Your task to perform on an android device: turn off priority inbox in the gmail app Image 0: 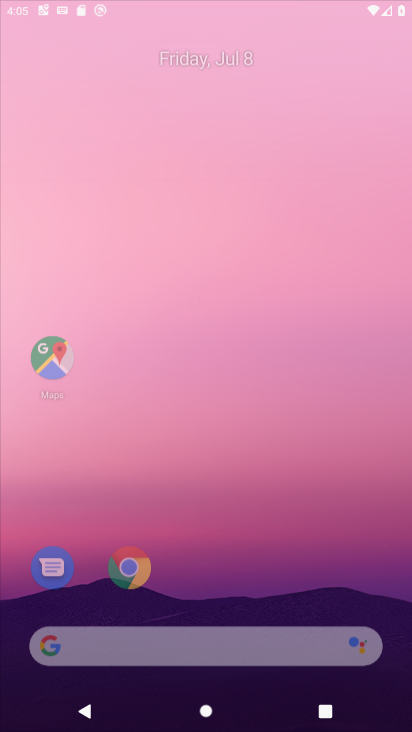
Step 0: click (301, 32)
Your task to perform on an android device: turn off priority inbox in the gmail app Image 1: 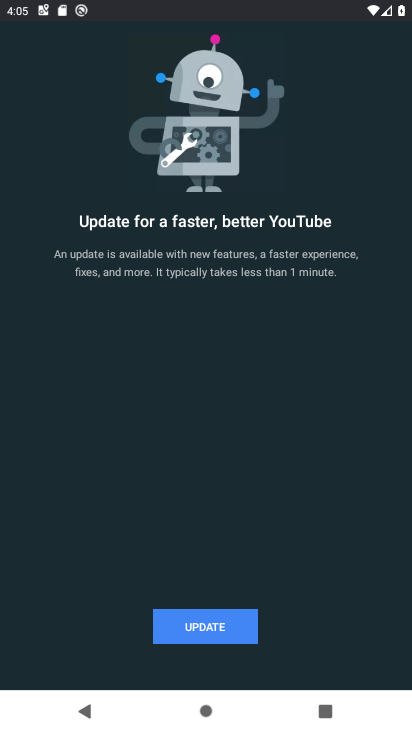
Step 1: press home button
Your task to perform on an android device: turn off priority inbox in the gmail app Image 2: 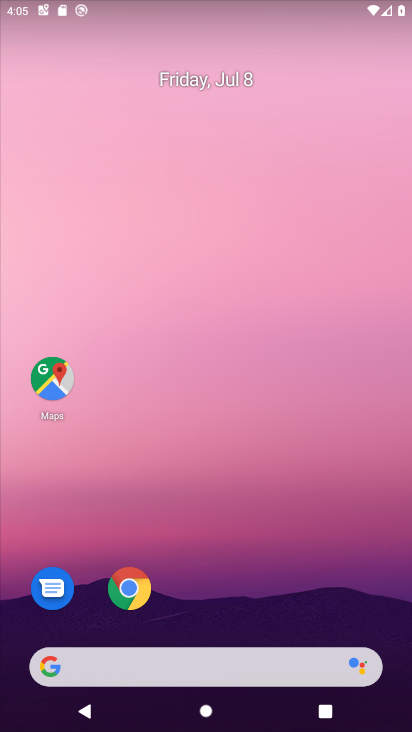
Step 2: drag from (211, 582) to (322, 0)
Your task to perform on an android device: turn off priority inbox in the gmail app Image 3: 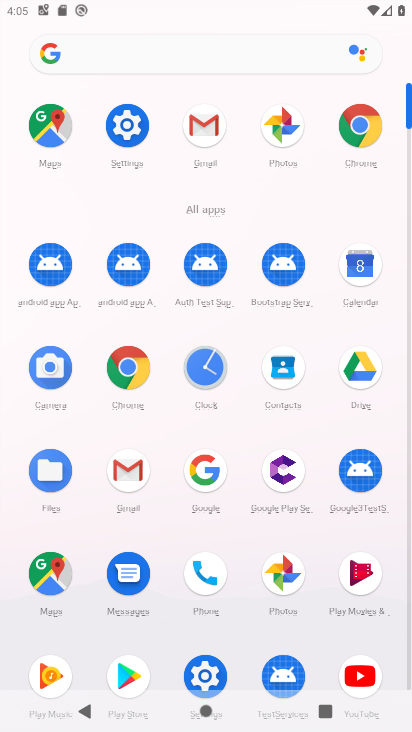
Step 3: click (137, 484)
Your task to perform on an android device: turn off priority inbox in the gmail app Image 4: 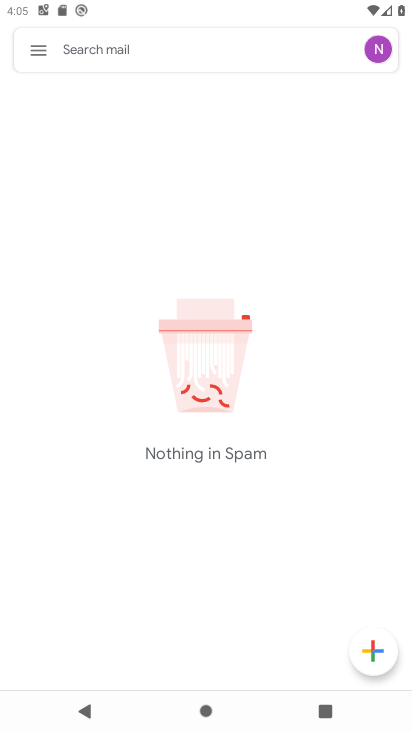
Step 4: click (32, 39)
Your task to perform on an android device: turn off priority inbox in the gmail app Image 5: 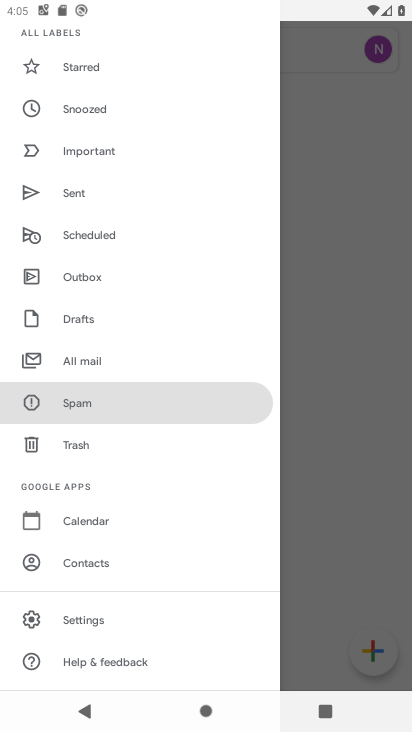
Step 5: click (83, 614)
Your task to perform on an android device: turn off priority inbox in the gmail app Image 6: 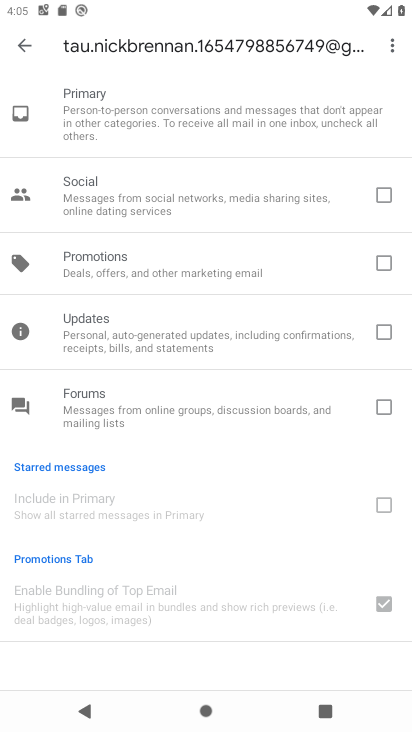
Step 6: click (24, 40)
Your task to perform on an android device: turn off priority inbox in the gmail app Image 7: 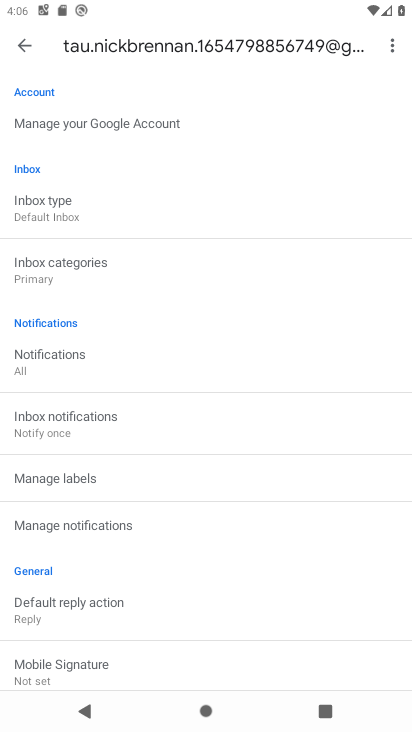
Step 7: click (71, 214)
Your task to perform on an android device: turn off priority inbox in the gmail app Image 8: 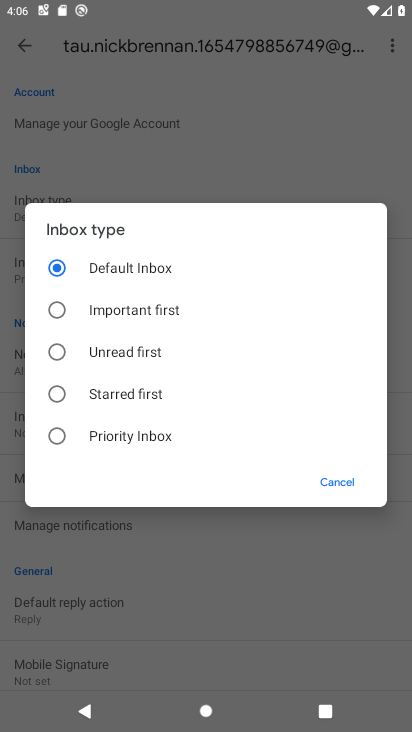
Step 8: click (111, 312)
Your task to perform on an android device: turn off priority inbox in the gmail app Image 9: 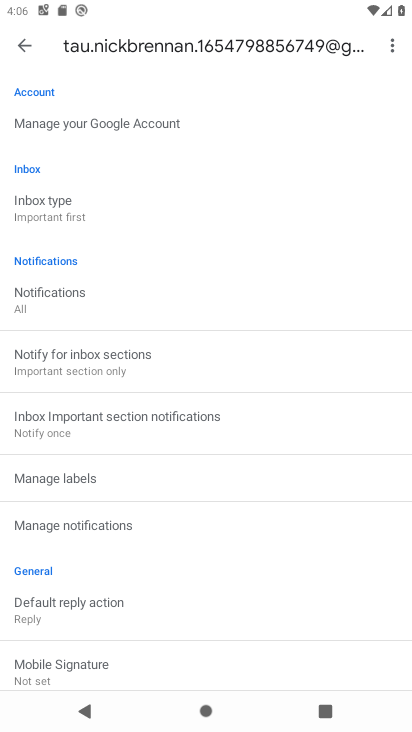
Step 9: task complete